Your task to perform on an android device: turn on priority inbox in the gmail app Image 0: 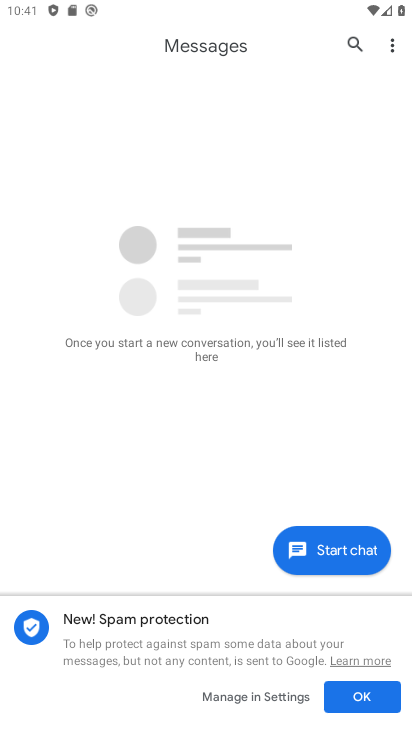
Step 0: press home button
Your task to perform on an android device: turn on priority inbox in the gmail app Image 1: 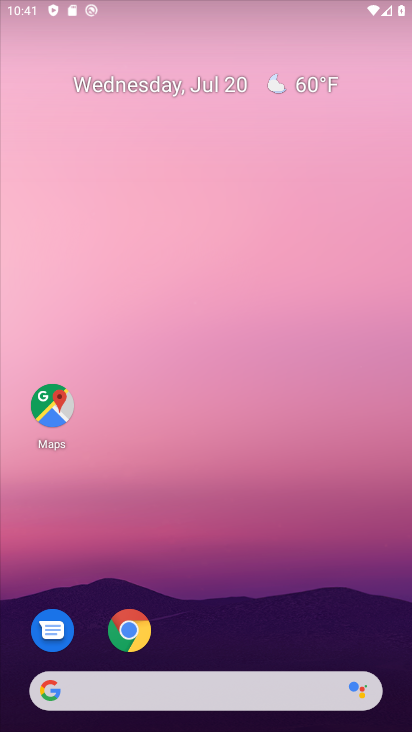
Step 1: drag from (212, 634) to (228, 108)
Your task to perform on an android device: turn on priority inbox in the gmail app Image 2: 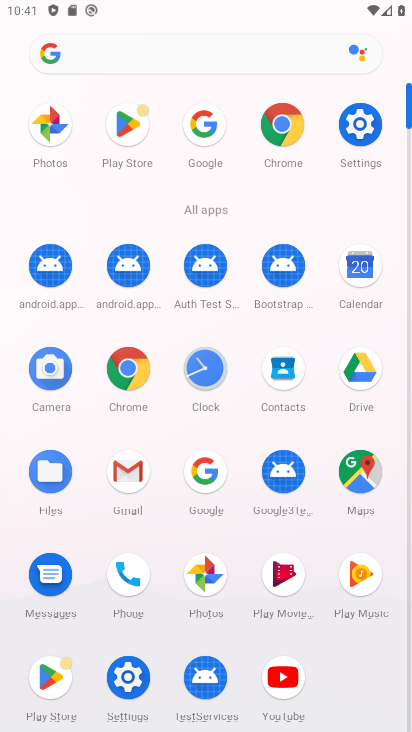
Step 2: click (124, 474)
Your task to perform on an android device: turn on priority inbox in the gmail app Image 3: 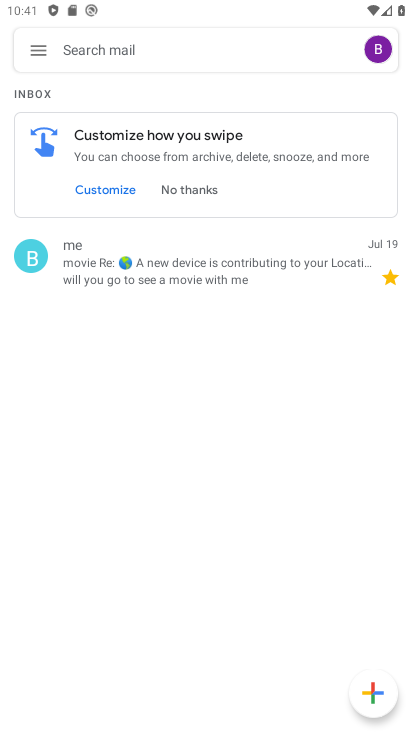
Step 3: click (39, 48)
Your task to perform on an android device: turn on priority inbox in the gmail app Image 4: 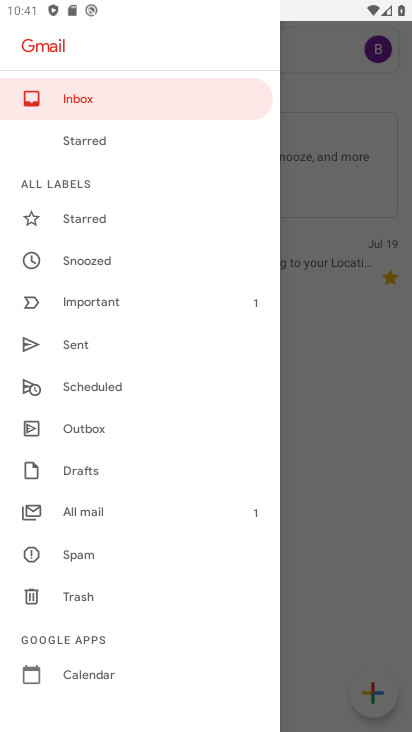
Step 4: drag from (83, 669) to (66, 237)
Your task to perform on an android device: turn on priority inbox in the gmail app Image 5: 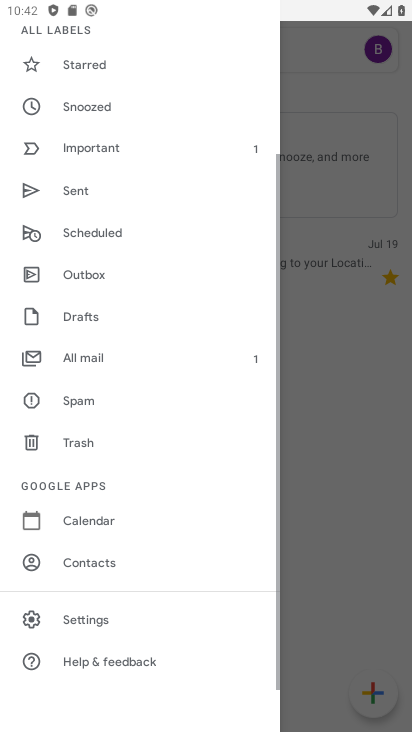
Step 5: click (67, 620)
Your task to perform on an android device: turn on priority inbox in the gmail app Image 6: 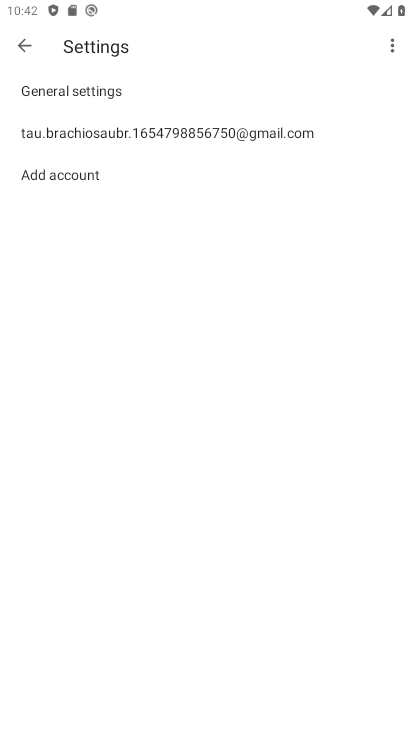
Step 6: click (72, 138)
Your task to perform on an android device: turn on priority inbox in the gmail app Image 7: 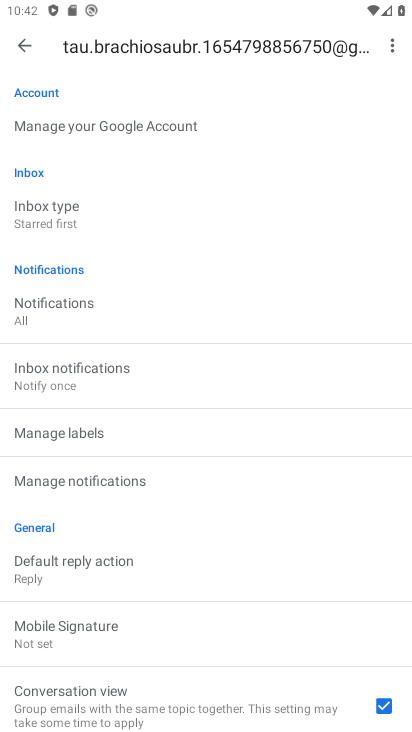
Step 7: click (68, 229)
Your task to perform on an android device: turn on priority inbox in the gmail app Image 8: 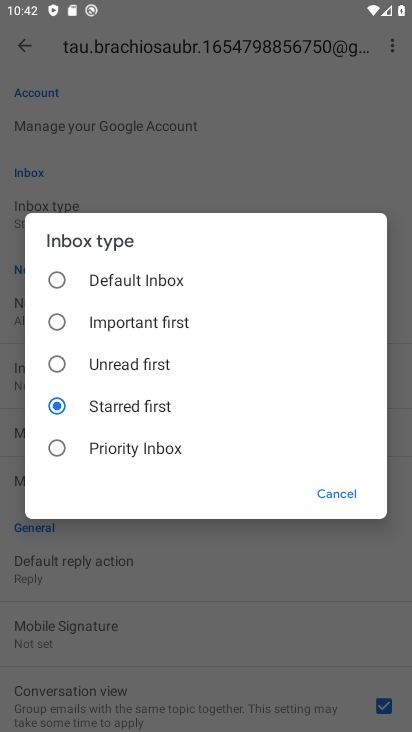
Step 8: click (56, 457)
Your task to perform on an android device: turn on priority inbox in the gmail app Image 9: 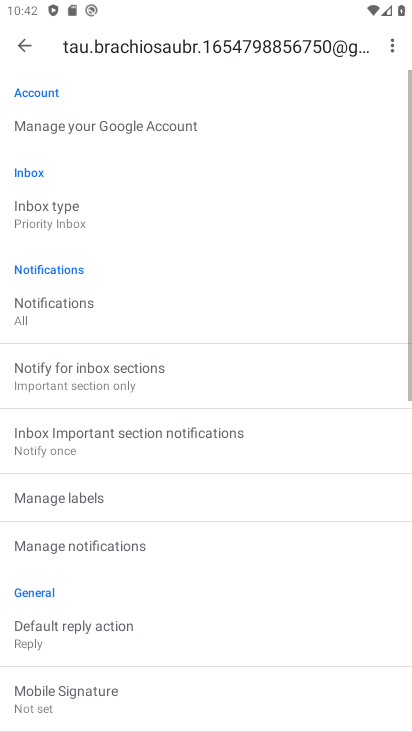
Step 9: task complete